Your task to perform on an android device: toggle improve location accuracy Image 0: 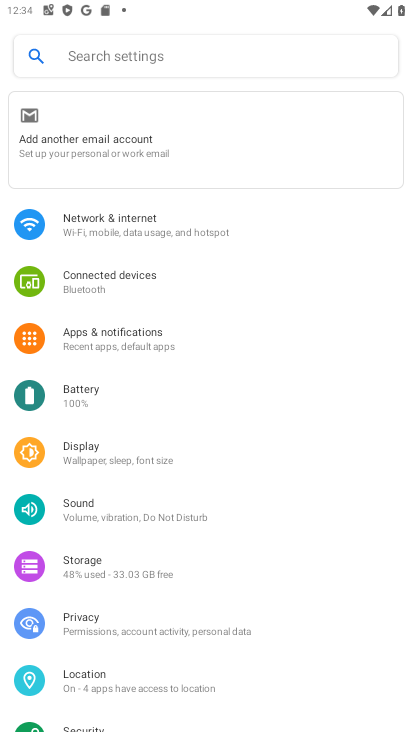
Step 0: click (251, 691)
Your task to perform on an android device: toggle improve location accuracy Image 1: 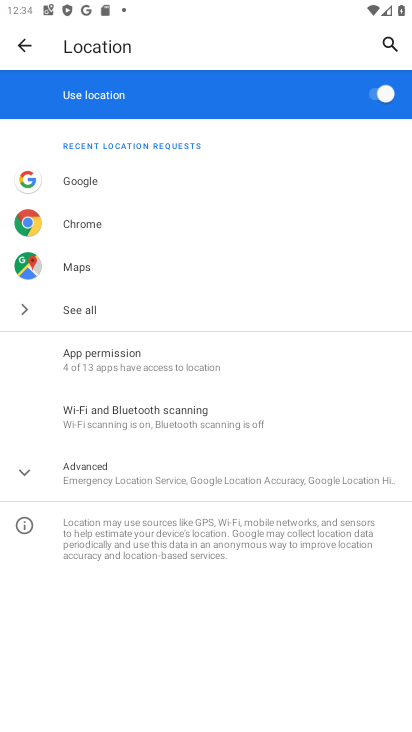
Step 1: click (141, 480)
Your task to perform on an android device: toggle improve location accuracy Image 2: 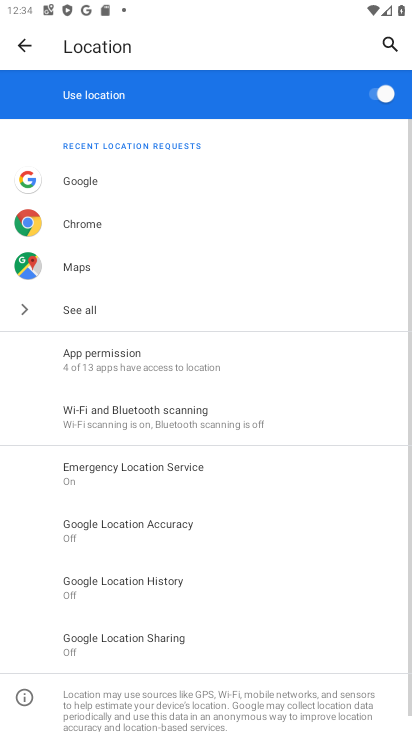
Step 2: click (174, 534)
Your task to perform on an android device: toggle improve location accuracy Image 3: 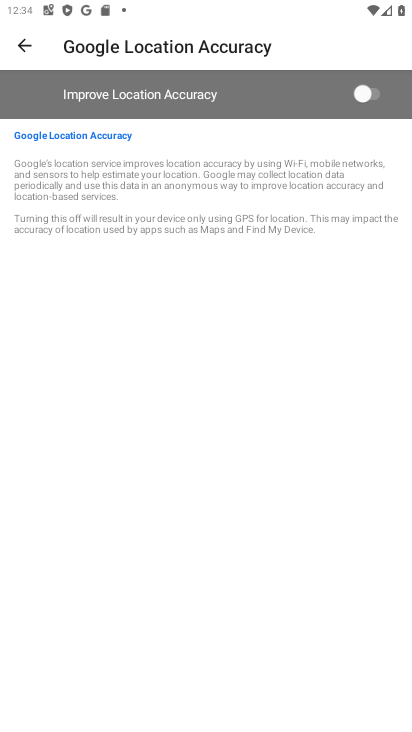
Step 3: click (378, 94)
Your task to perform on an android device: toggle improve location accuracy Image 4: 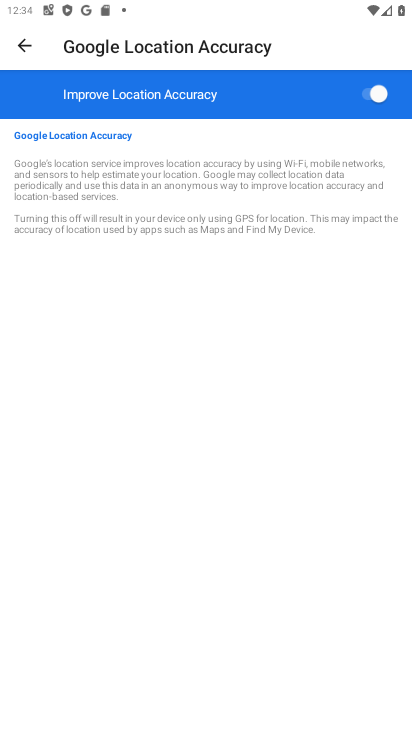
Step 4: task complete